Your task to perform on an android device: turn off improve location accuracy Image 0: 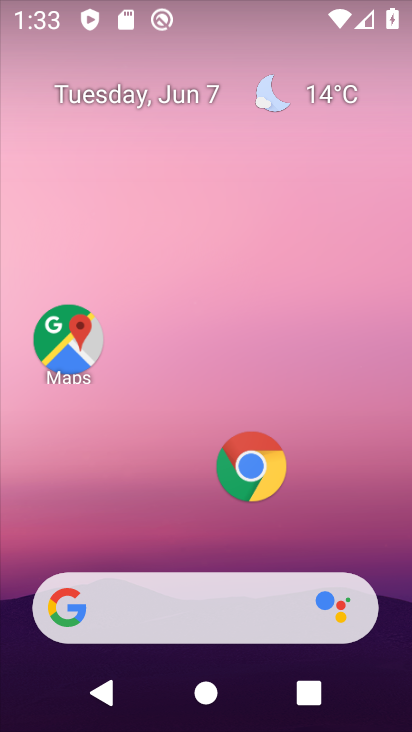
Step 0: drag from (174, 730) to (195, 213)
Your task to perform on an android device: turn off improve location accuracy Image 1: 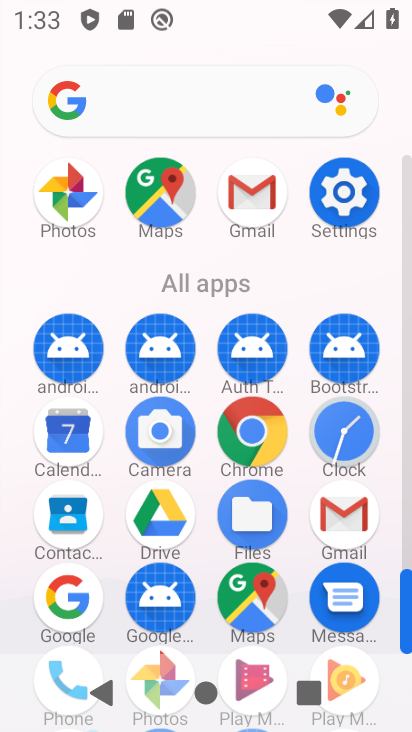
Step 1: click (360, 199)
Your task to perform on an android device: turn off improve location accuracy Image 2: 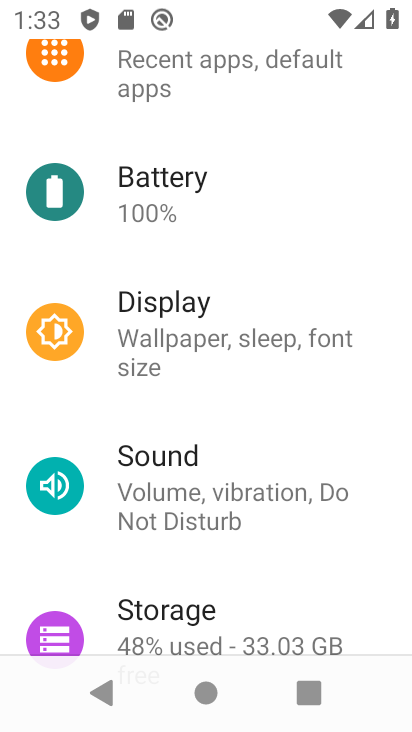
Step 2: drag from (303, 563) to (331, 179)
Your task to perform on an android device: turn off improve location accuracy Image 3: 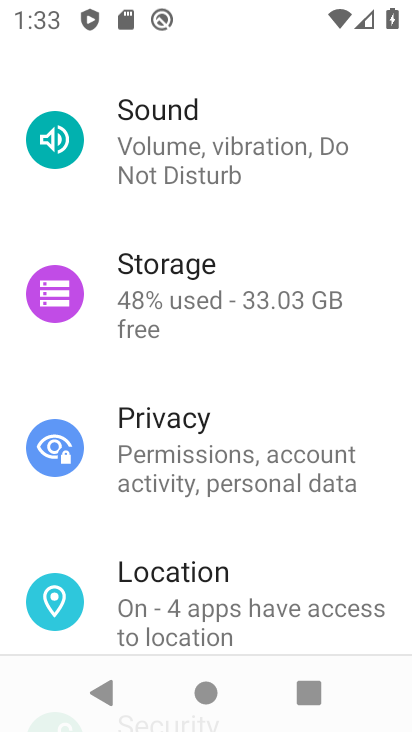
Step 3: click (188, 608)
Your task to perform on an android device: turn off improve location accuracy Image 4: 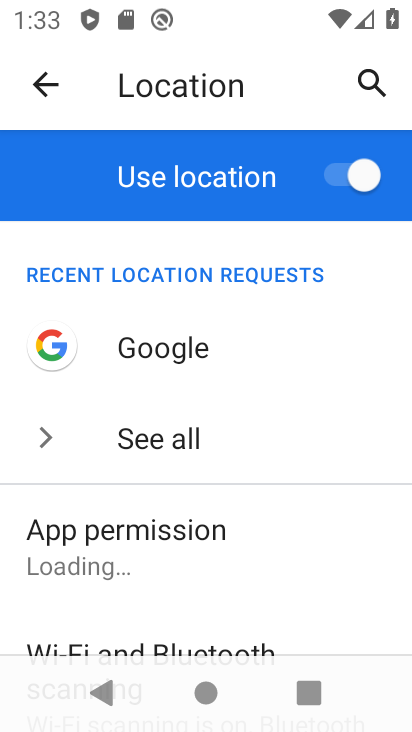
Step 4: drag from (257, 513) to (304, 230)
Your task to perform on an android device: turn off improve location accuracy Image 5: 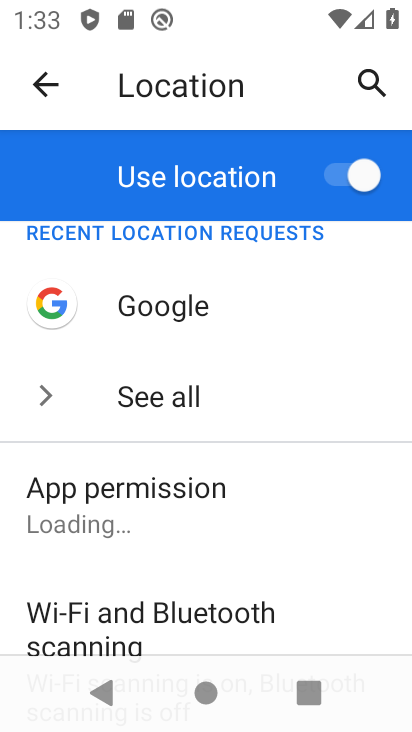
Step 5: drag from (303, 559) to (359, 272)
Your task to perform on an android device: turn off improve location accuracy Image 6: 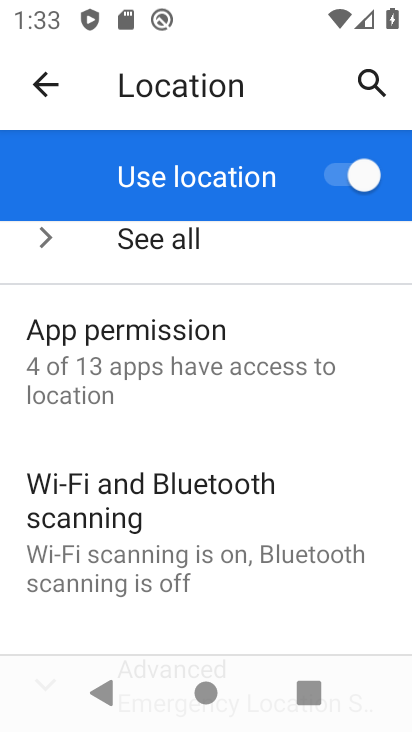
Step 6: drag from (193, 608) to (198, 260)
Your task to perform on an android device: turn off improve location accuracy Image 7: 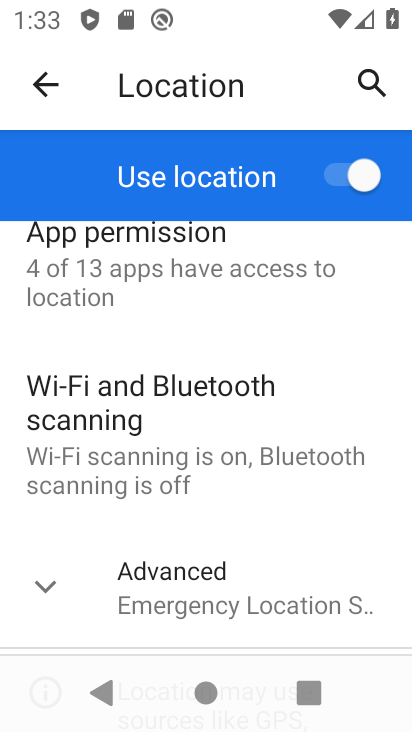
Step 7: click (172, 608)
Your task to perform on an android device: turn off improve location accuracy Image 8: 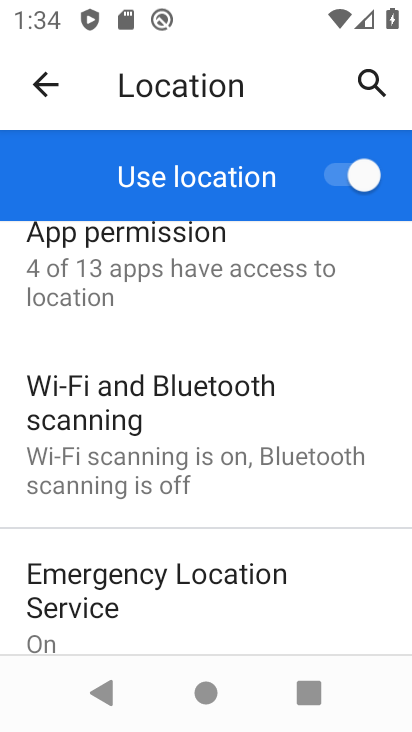
Step 8: drag from (187, 618) to (208, 265)
Your task to perform on an android device: turn off improve location accuracy Image 9: 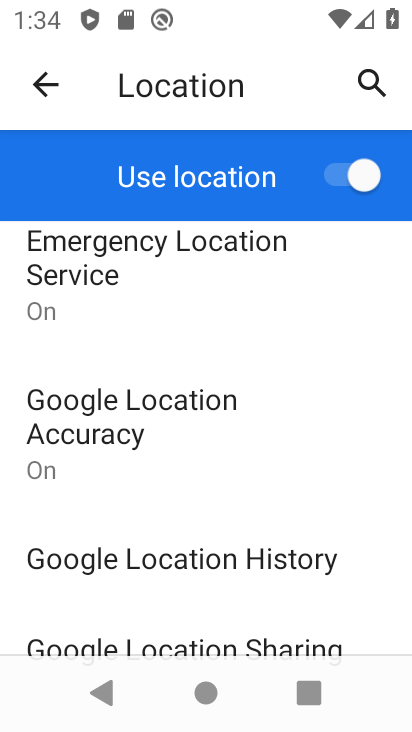
Step 9: click (127, 434)
Your task to perform on an android device: turn off improve location accuracy Image 10: 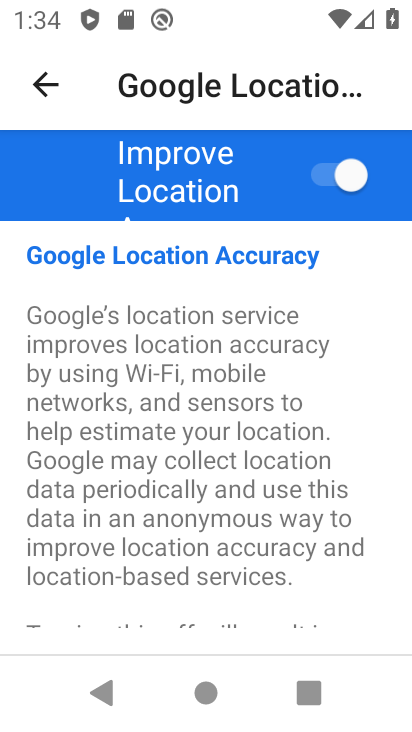
Step 10: click (343, 179)
Your task to perform on an android device: turn off improve location accuracy Image 11: 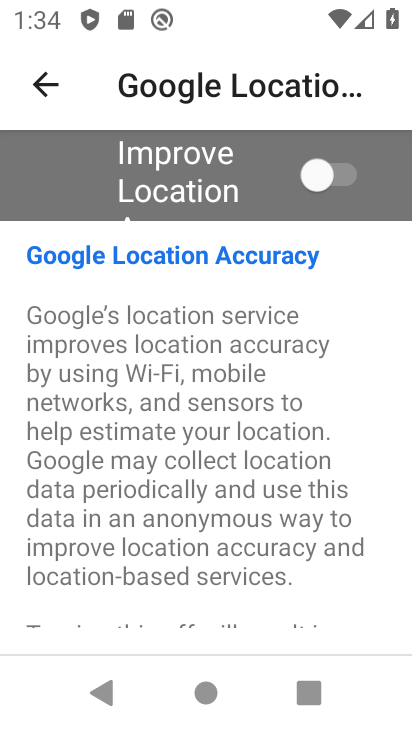
Step 11: task complete